Your task to perform on an android device: Go to sound settings Image 0: 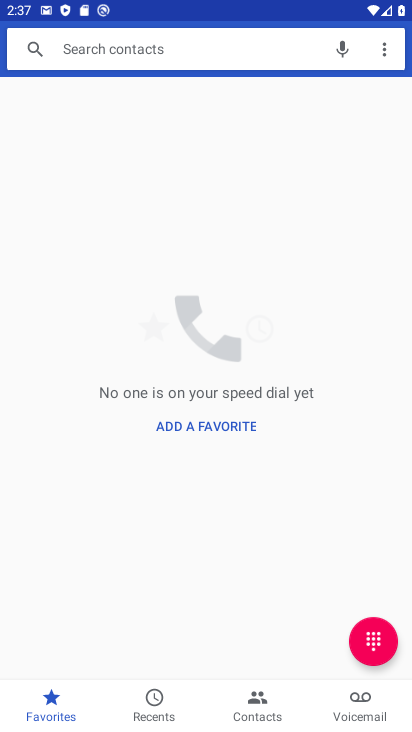
Step 0: press home button
Your task to perform on an android device: Go to sound settings Image 1: 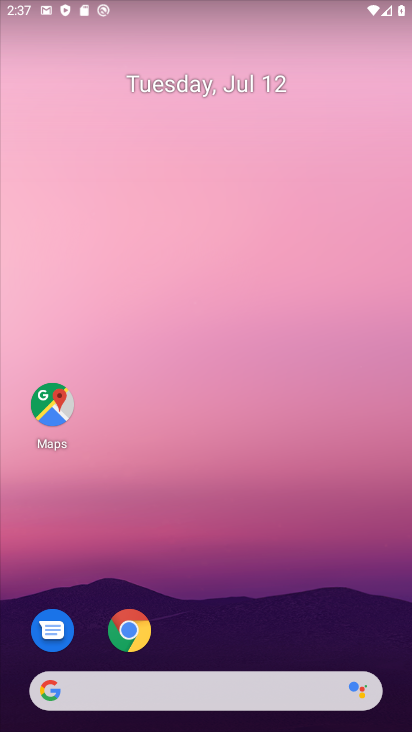
Step 1: drag from (286, 709) to (293, 105)
Your task to perform on an android device: Go to sound settings Image 2: 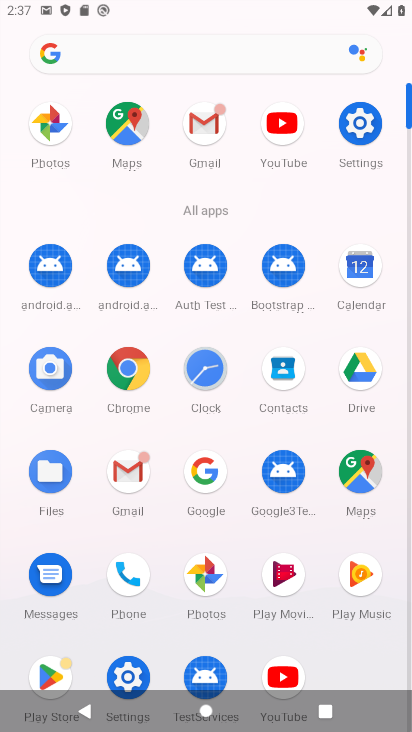
Step 2: click (363, 129)
Your task to perform on an android device: Go to sound settings Image 3: 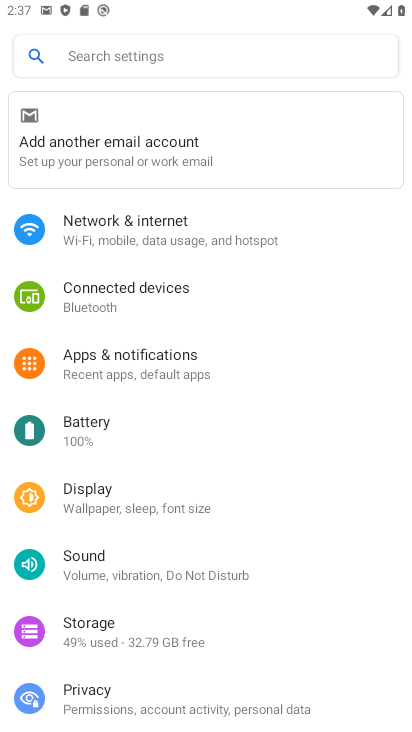
Step 3: click (105, 561)
Your task to perform on an android device: Go to sound settings Image 4: 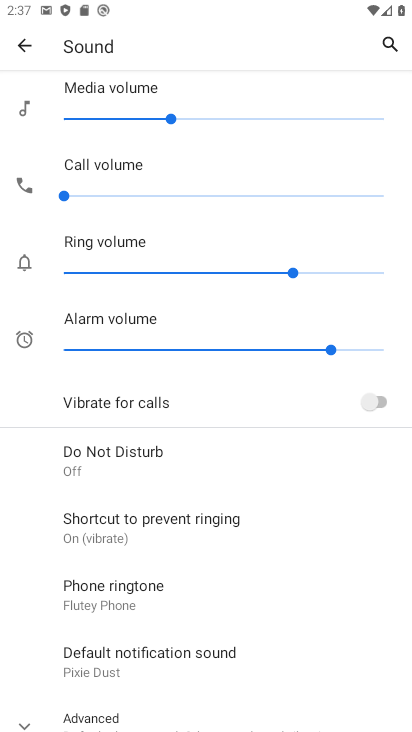
Step 4: task complete